Your task to perform on an android device: open a new tab in the chrome app Image 0: 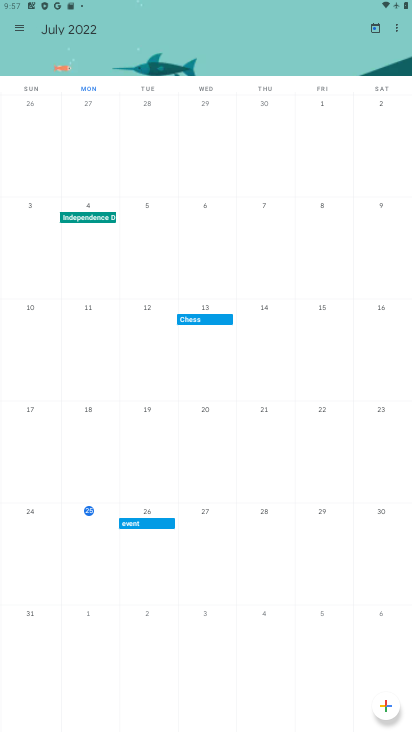
Step 0: press home button
Your task to perform on an android device: open a new tab in the chrome app Image 1: 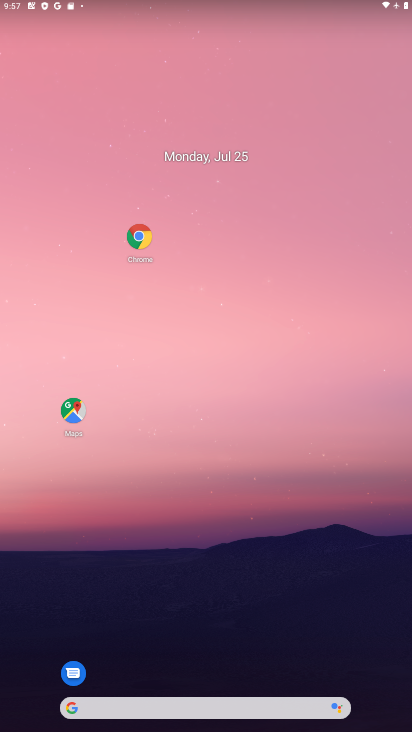
Step 1: click (153, 237)
Your task to perform on an android device: open a new tab in the chrome app Image 2: 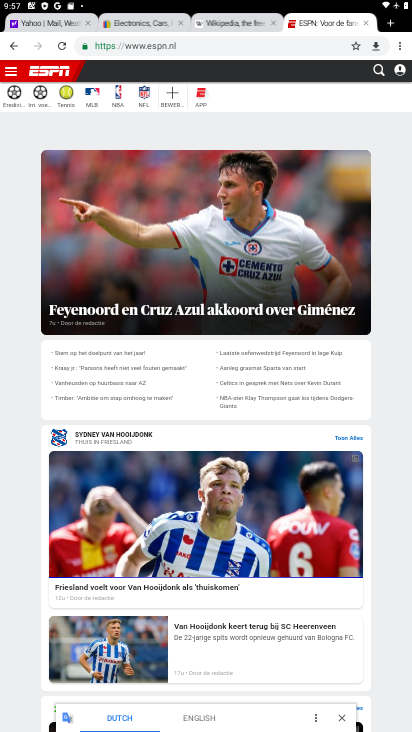
Step 2: task complete